Your task to perform on an android device: Open Google Maps and go to "Timeline" Image 0: 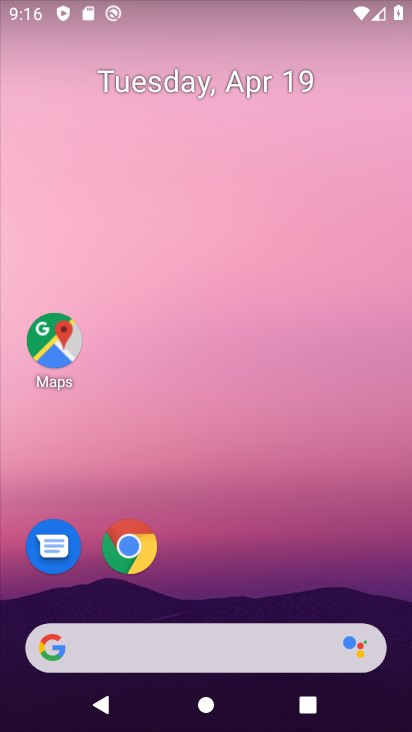
Step 0: drag from (206, 582) to (206, 90)
Your task to perform on an android device: Open Google Maps and go to "Timeline" Image 1: 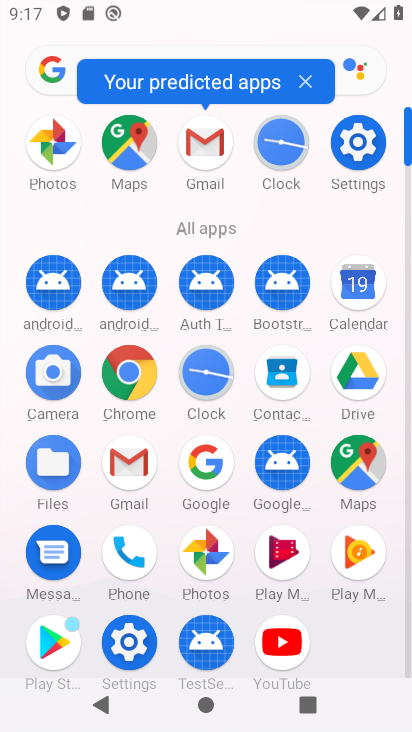
Step 1: click (129, 145)
Your task to perform on an android device: Open Google Maps and go to "Timeline" Image 2: 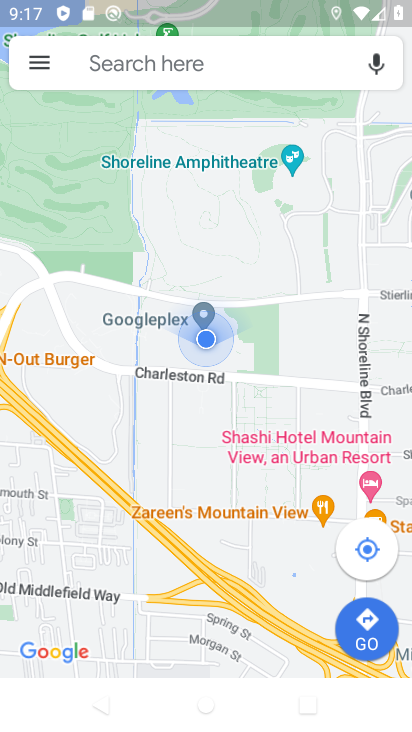
Step 2: click (36, 65)
Your task to perform on an android device: Open Google Maps and go to "Timeline" Image 3: 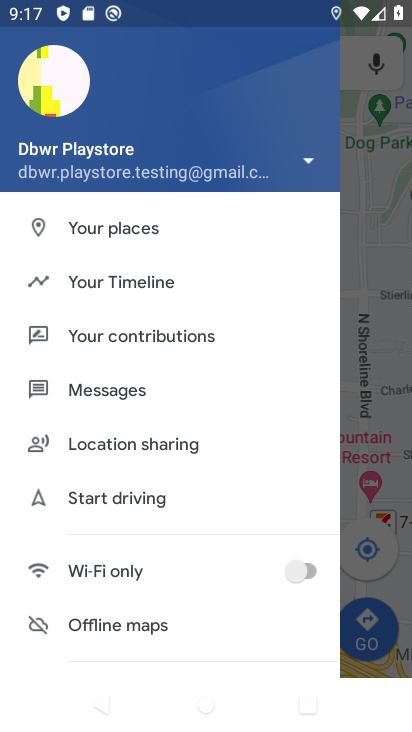
Step 3: click (96, 281)
Your task to perform on an android device: Open Google Maps and go to "Timeline" Image 4: 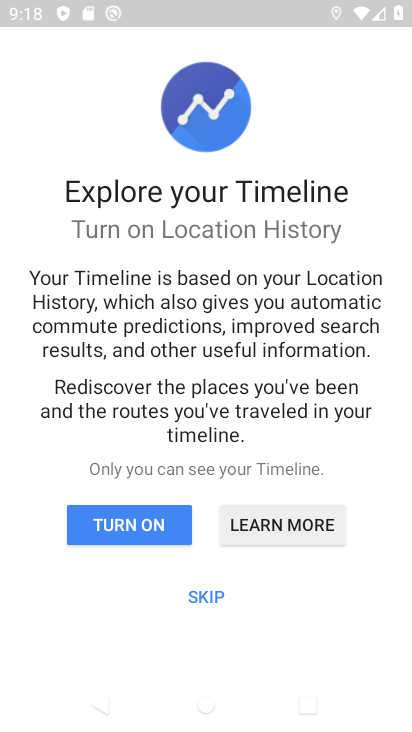
Step 4: click (211, 592)
Your task to perform on an android device: Open Google Maps and go to "Timeline" Image 5: 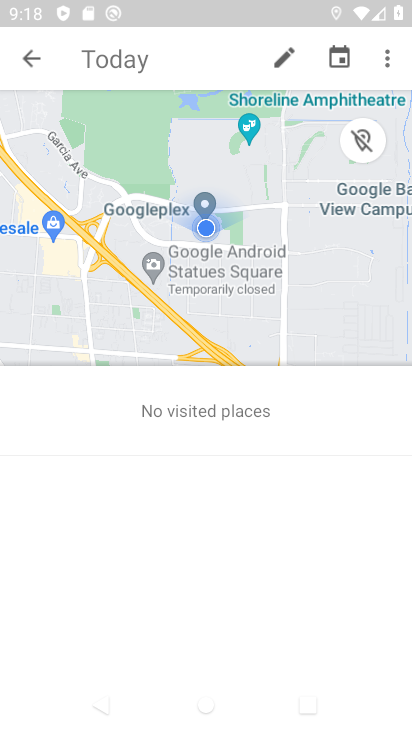
Step 5: task complete